Your task to perform on an android device: install app "Facebook Messenger" Image 0: 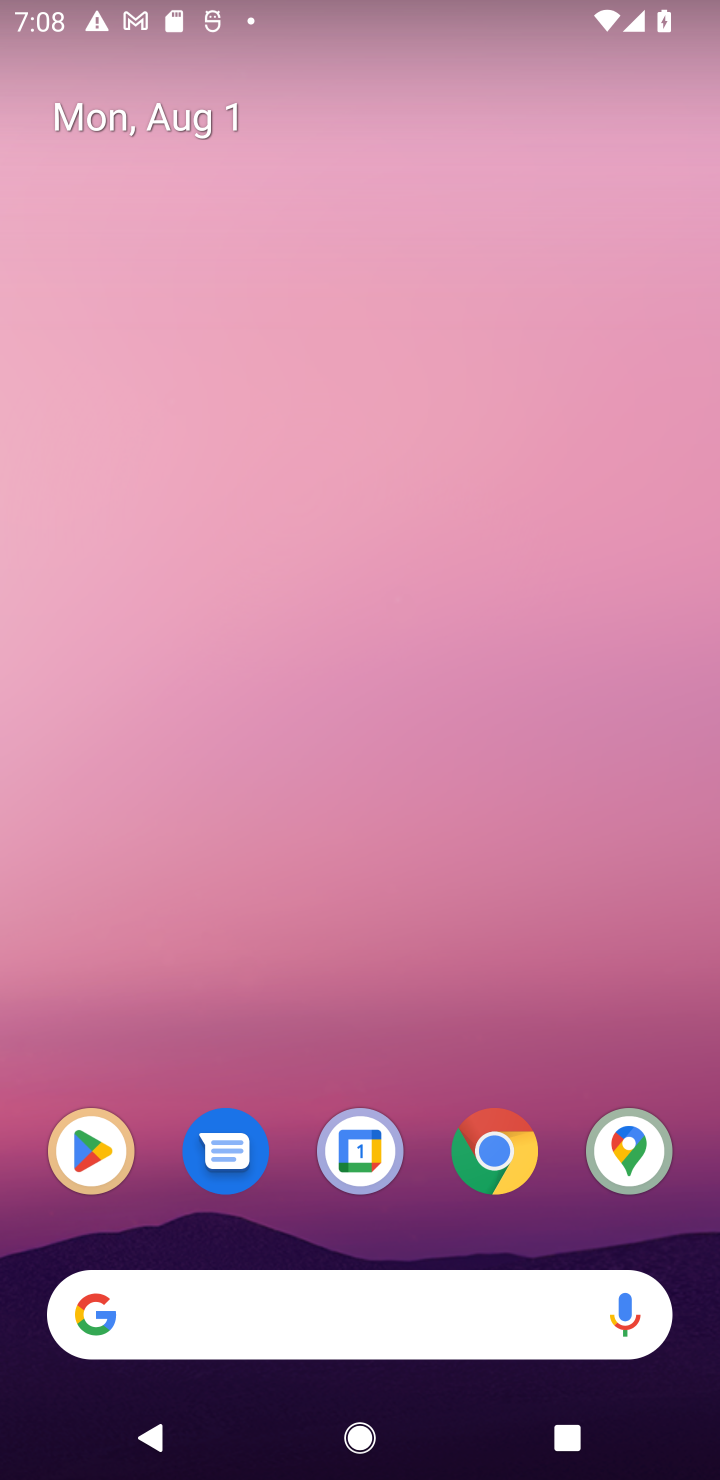
Step 0: drag from (485, 1313) to (476, 66)
Your task to perform on an android device: install app "Facebook Messenger" Image 1: 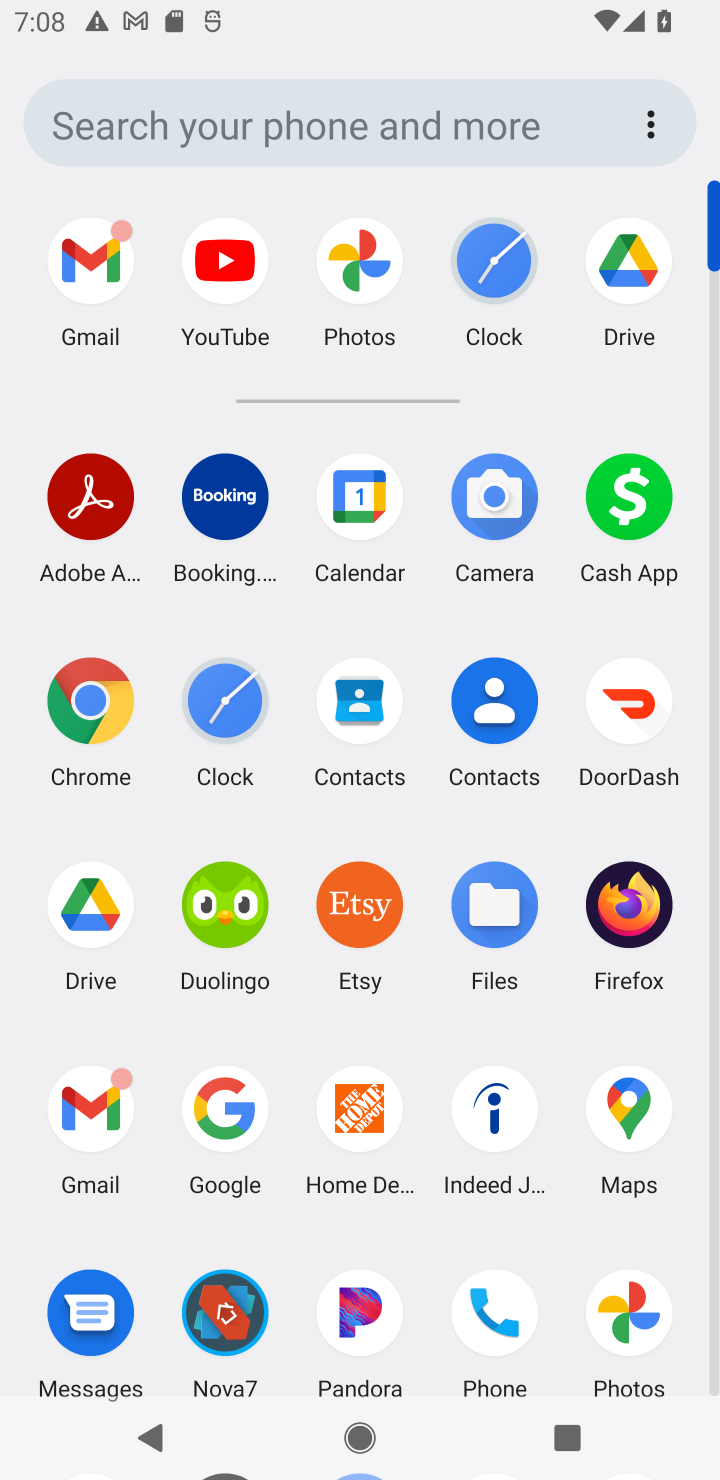
Step 1: drag from (529, 1290) to (506, 541)
Your task to perform on an android device: install app "Facebook Messenger" Image 2: 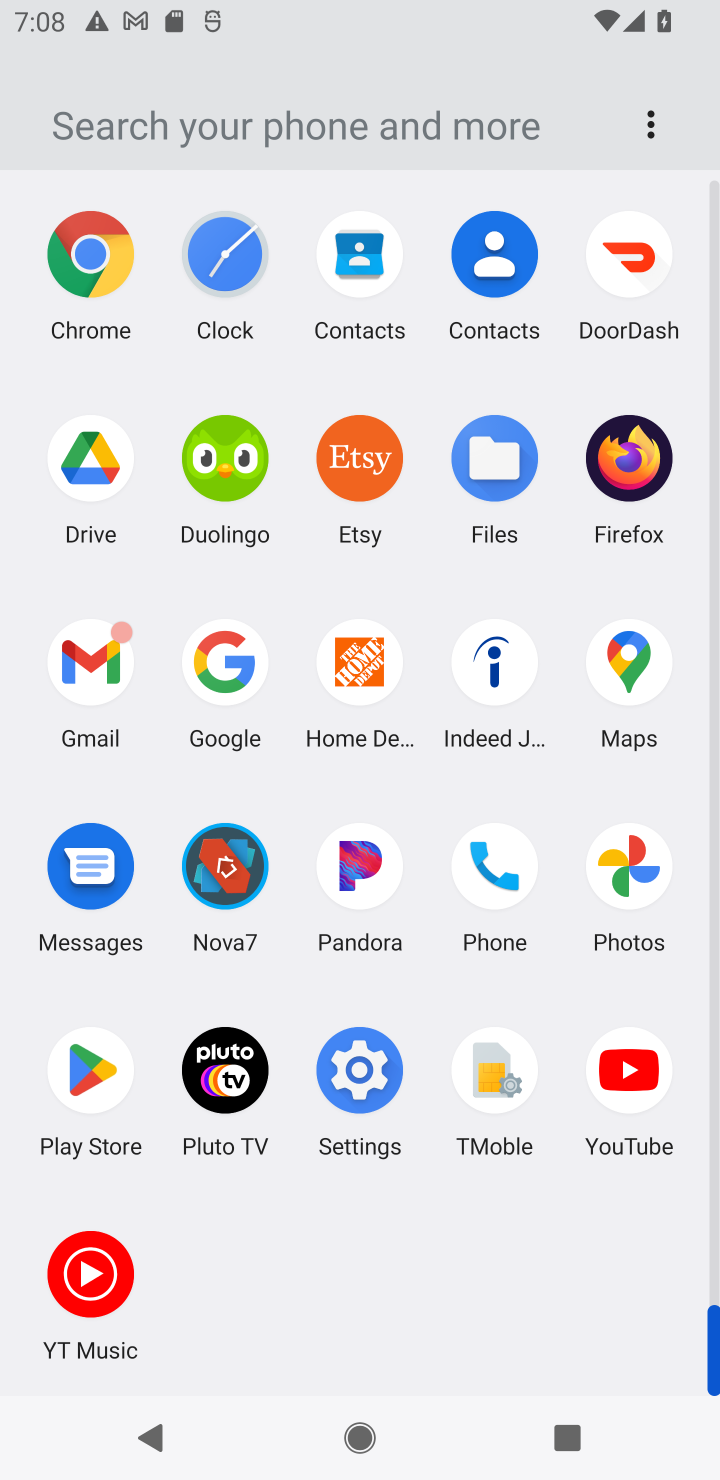
Step 2: click (81, 1090)
Your task to perform on an android device: install app "Facebook Messenger" Image 3: 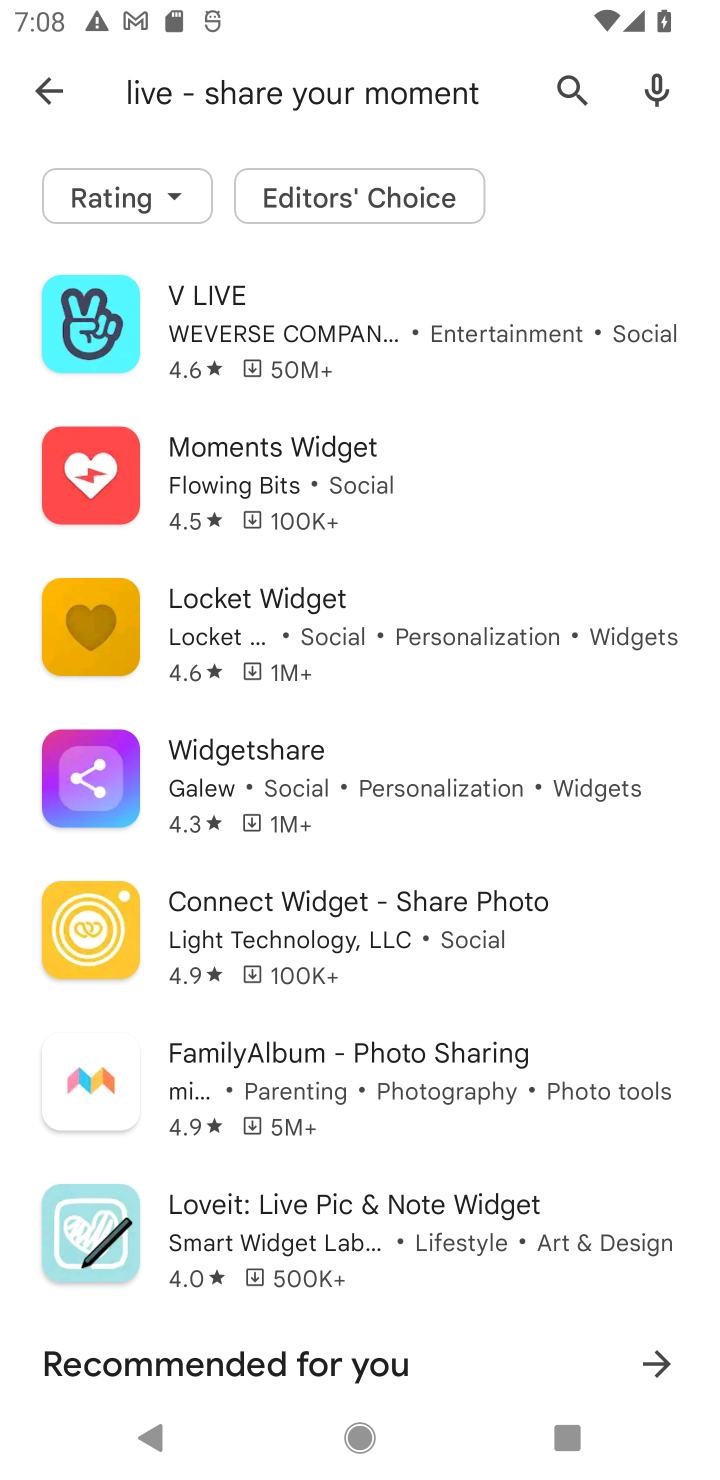
Step 3: click (567, 104)
Your task to perform on an android device: install app "Facebook Messenger" Image 4: 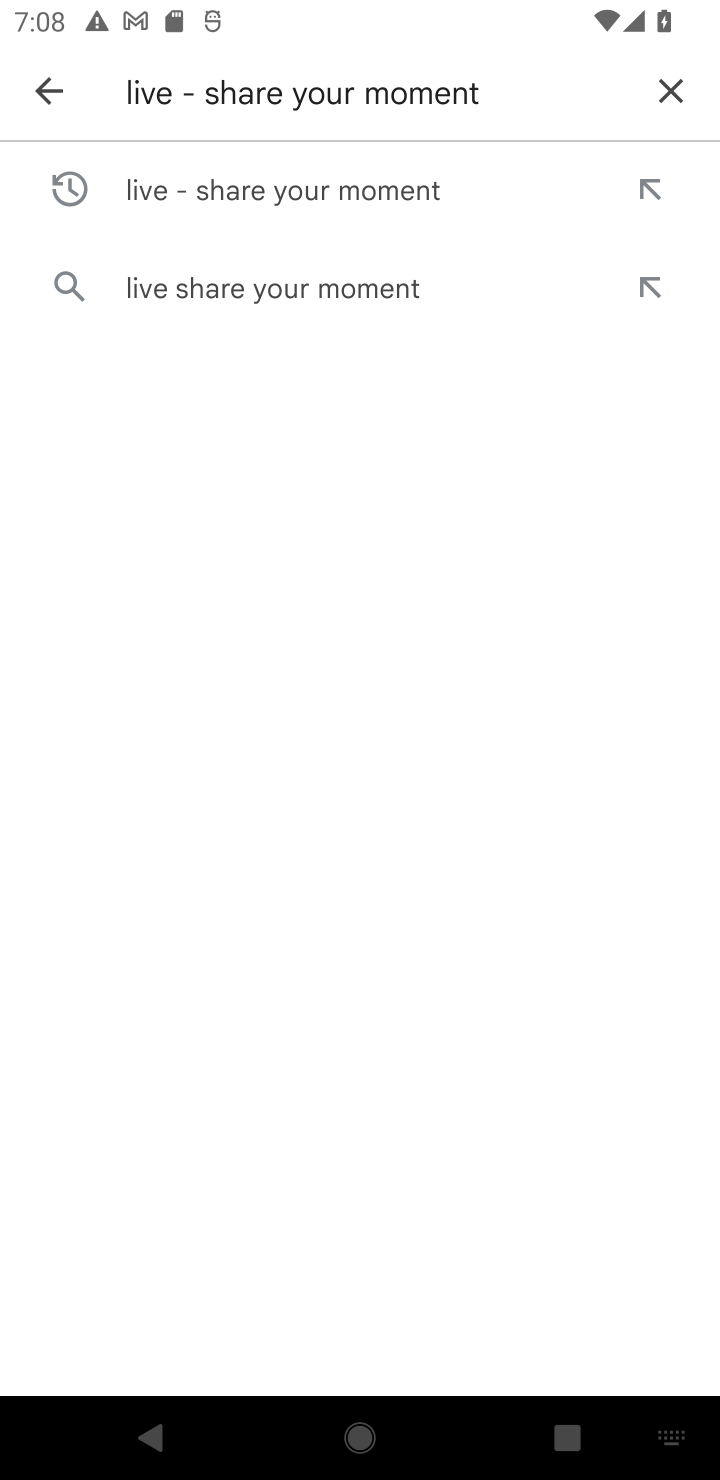
Step 4: click (677, 87)
Your task to perform on an android device: install app "Facebook Messenger" Image 5: 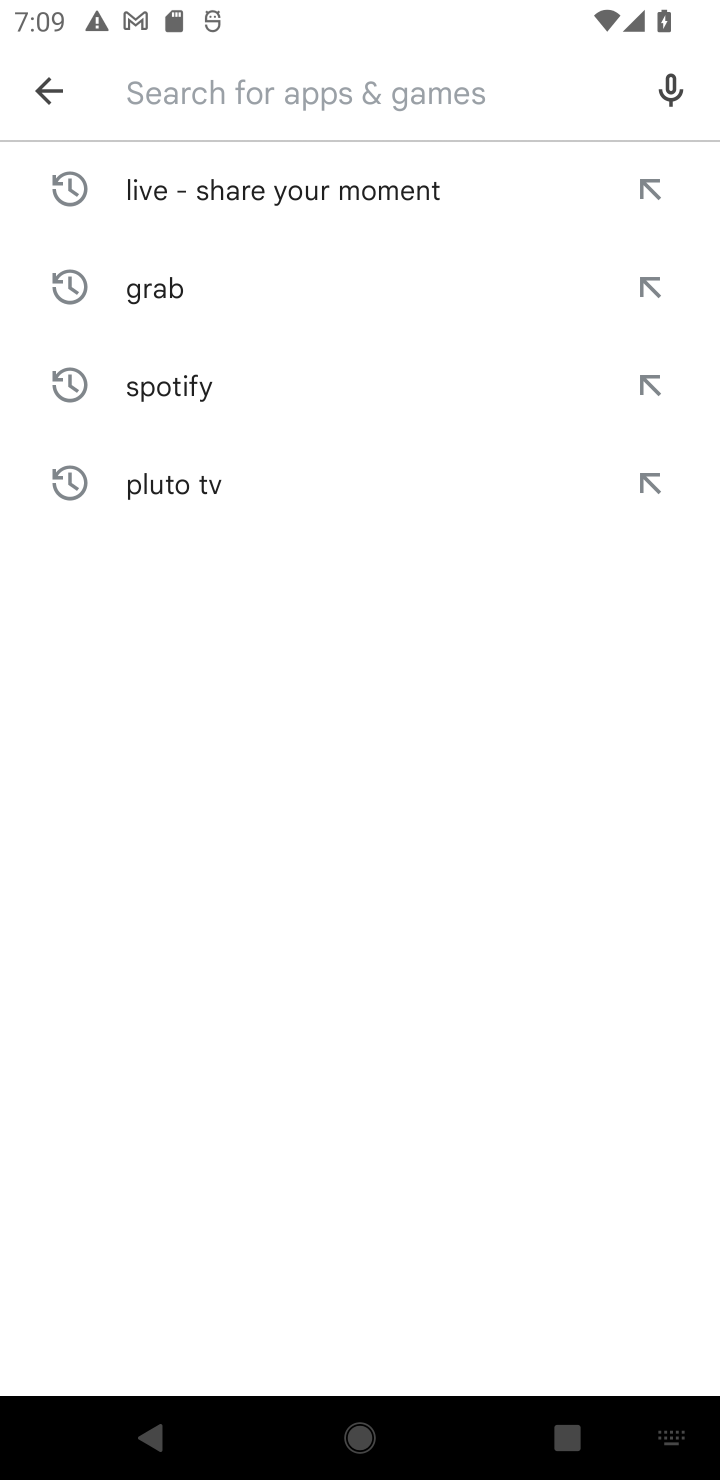
Step 5: click (456, 95)
Your task to perform on an android device: install app "Facebook Messenger" Image 6: 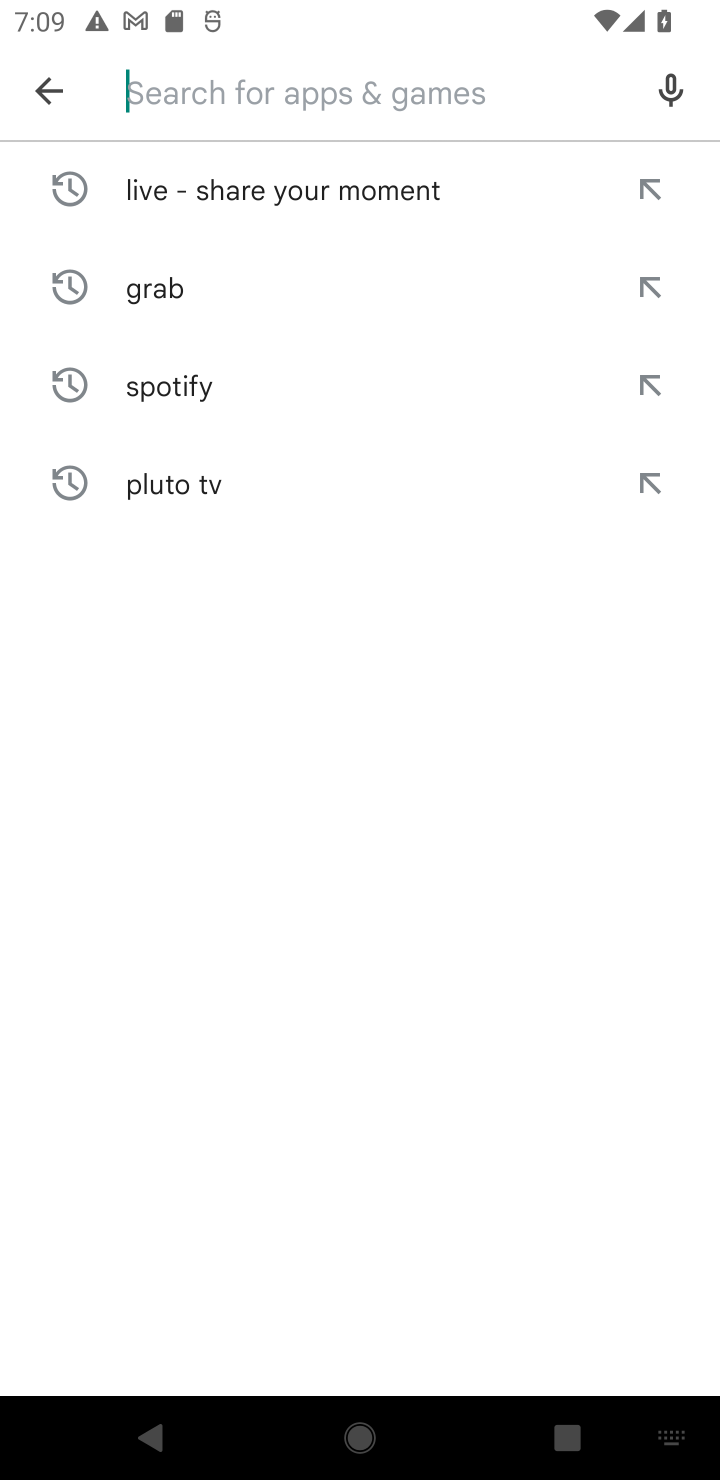
Step 6: type "facebook directly"
Your task to perform on an android device: install app "Facebook Messenger" Image 7: 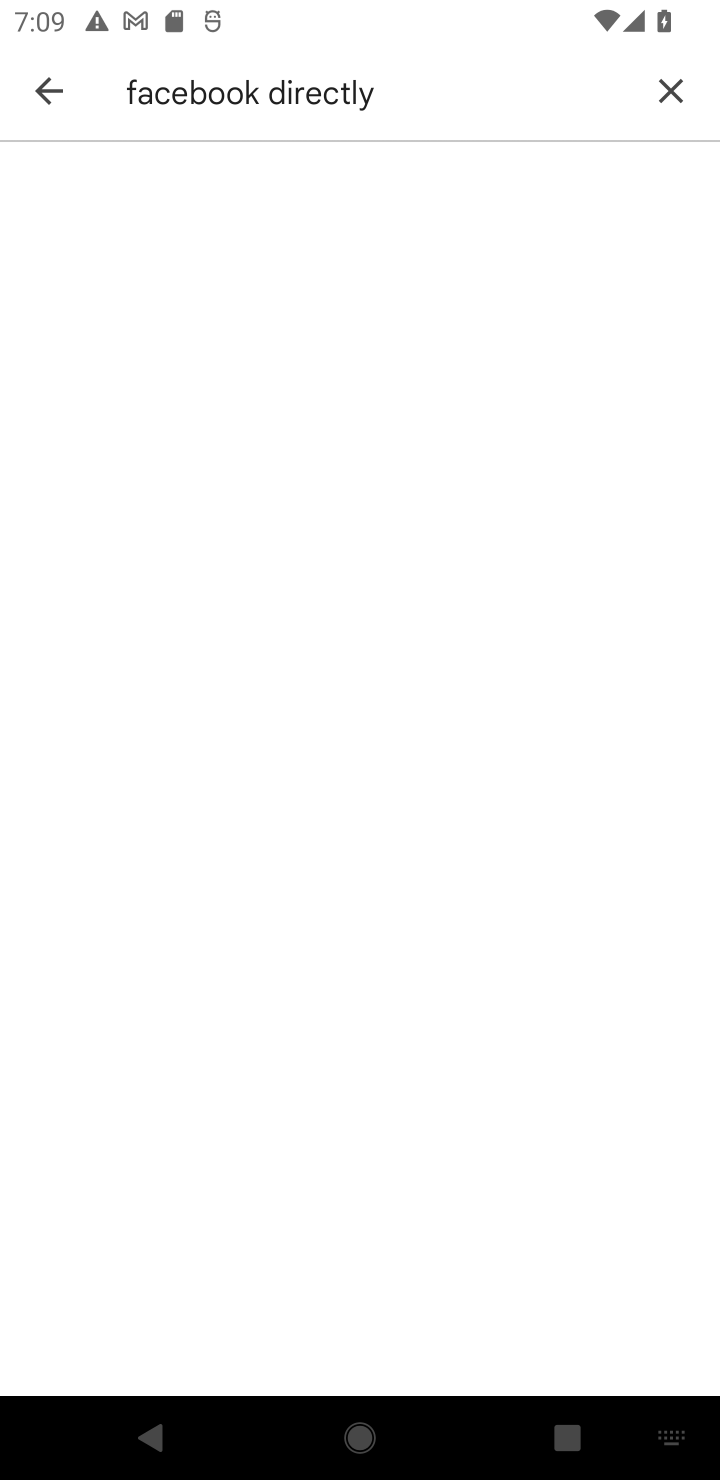
Step 7: click (671, 71)
Your task to perform on an android device: install app "Facebook Messenger" Image 8: 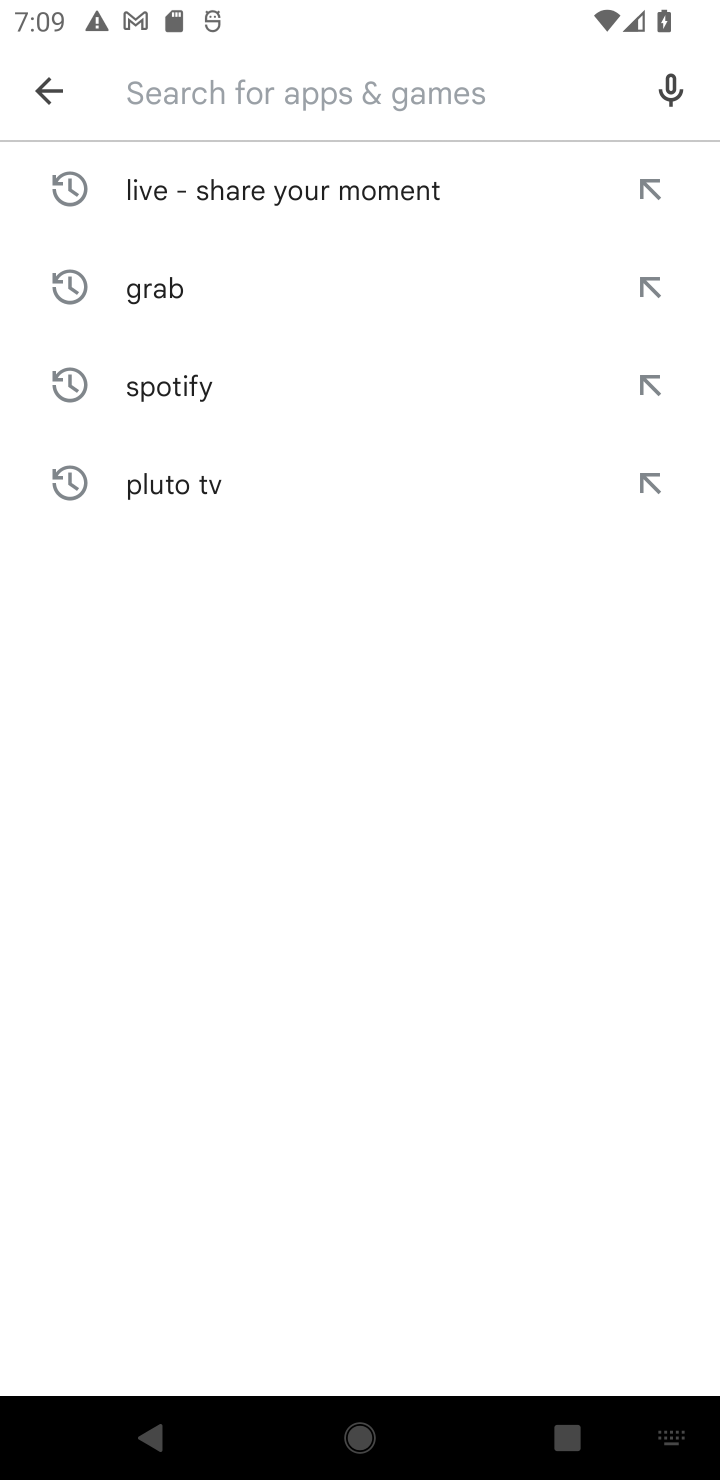
Step 8: type "facebook messenger"
Your task to perform on an android device: install app "Facebook Messenger" Image 9: 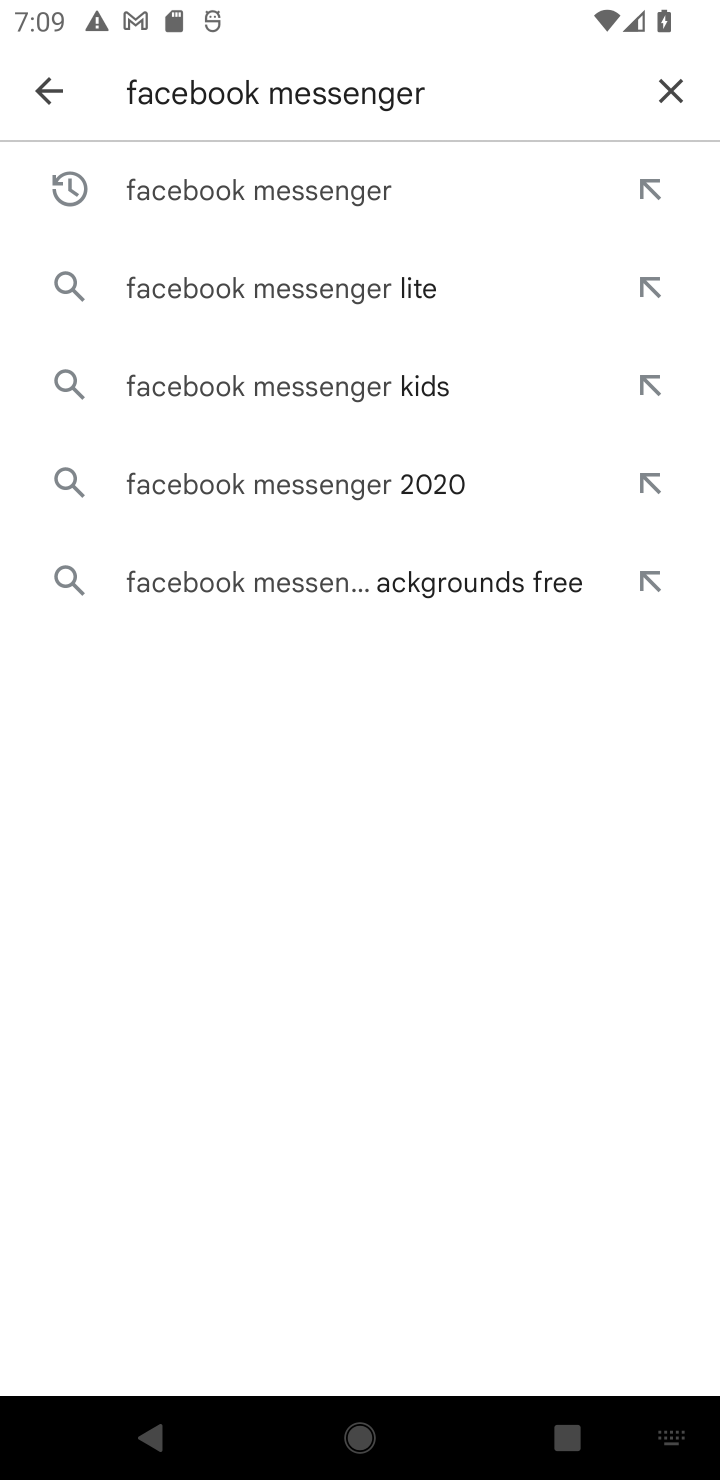
Step 9: click (276, 186)
Your task to perform on an android device: install app "Facebook Messenger" Image 10: 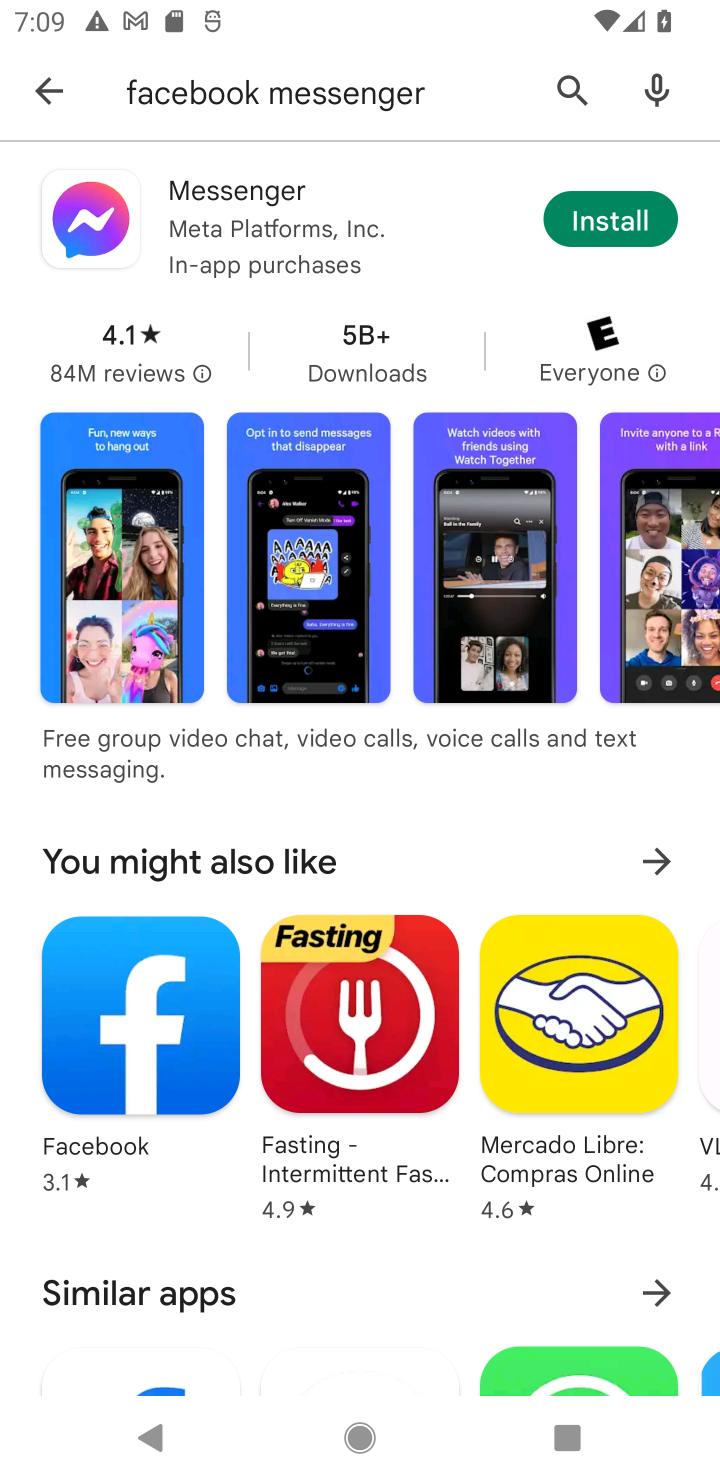
Step 10: click (638, 214)
Your task to perform on an android device: install app "Facebook Messenger" Image 11: 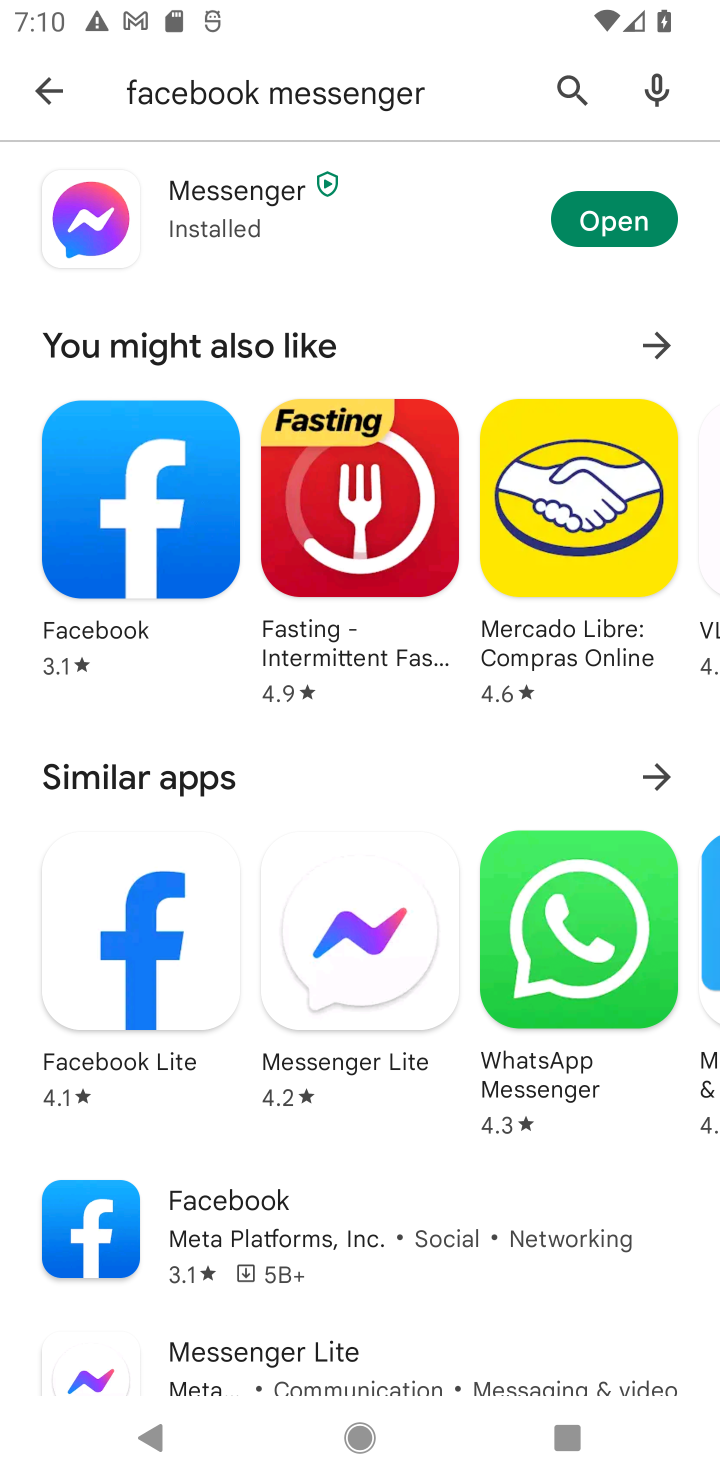
Step 11: task complete